Your task to perform on an android device: Search for "razer nari" on newegg, select the first entry, add it to the cart, then select checkout. Image 0: 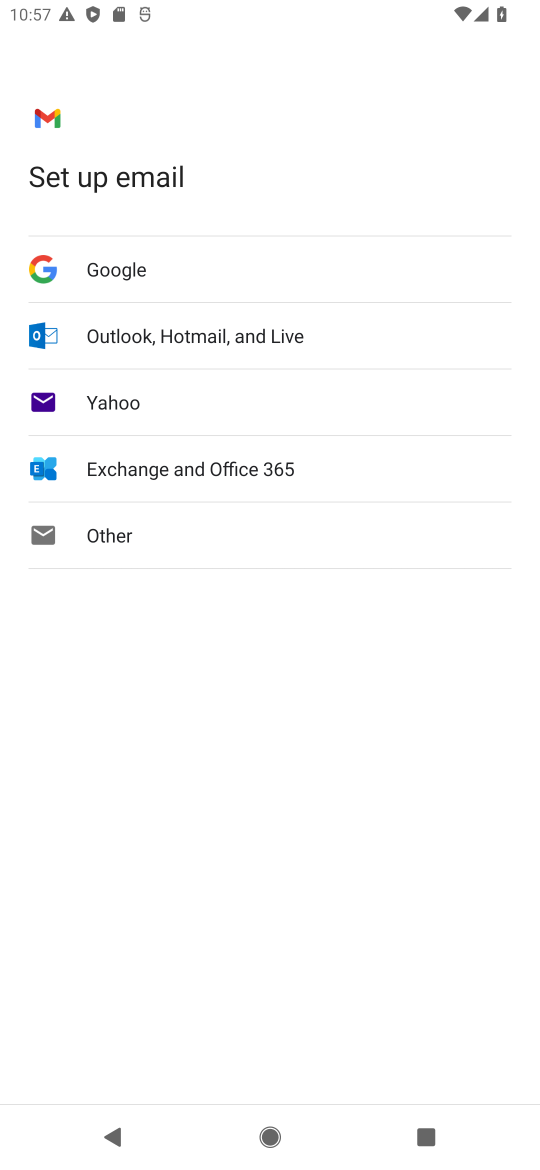
Step 0: press home button
Your task to perform on an android device: Search for "razer nari" on newegg, select the first entry, add it to the cart, then select checkout. Image 1: 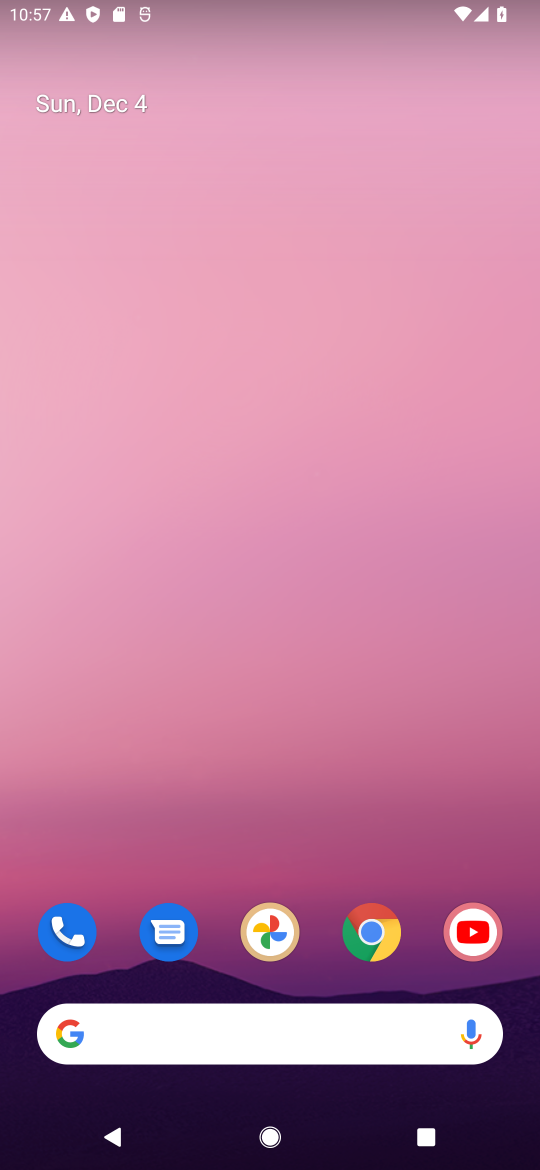
Step 1: click (359, 927)
Your task to perform on an android device: Search for "razer nari" on newegg, select the first entry, add it to the cart, then select checkout. Image 2: 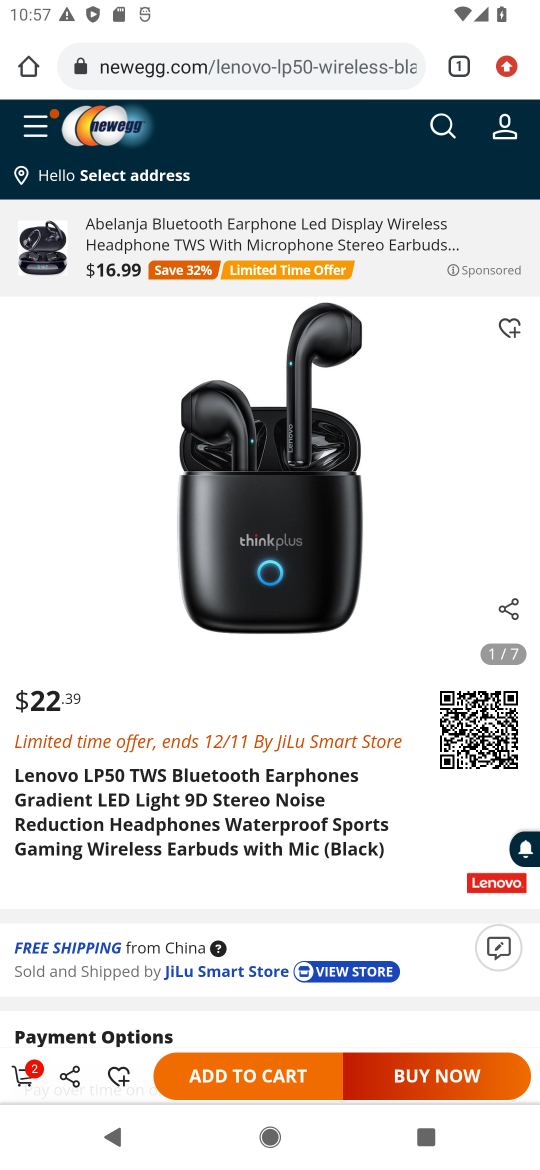
Step 2: click (286, 63)
Your task to perform on an android device: Search for "razer nari" on newegg, select the first entry, add it to the cart, then select checkout. Image 3: 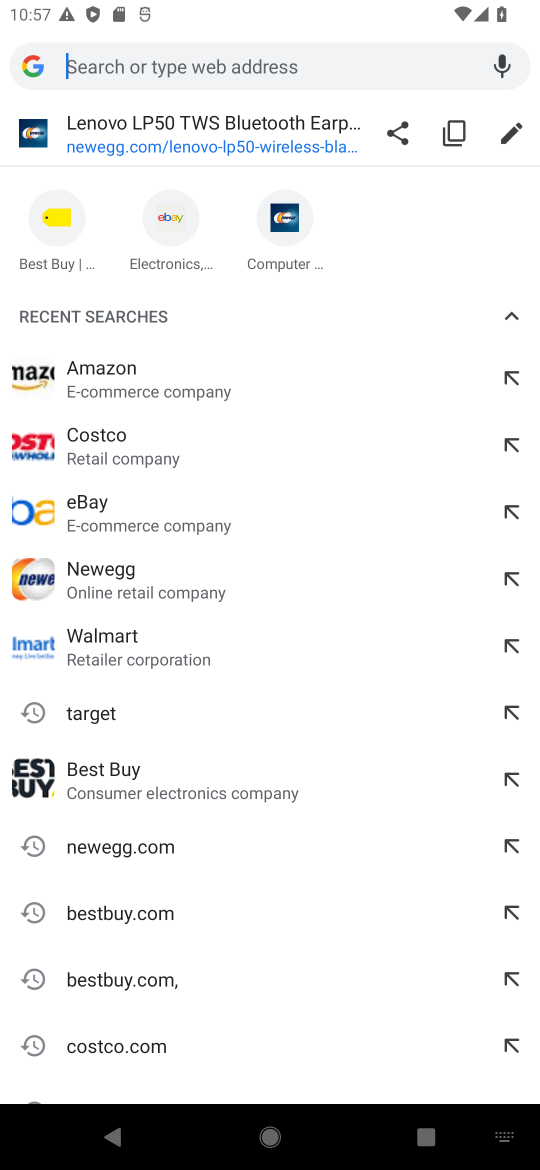
Step 3: click (109, 588)
Your task to perform on an android device: Search for "razer nari" on newegg, select the first entry, add it to the cart, then select checkout. Image 4: 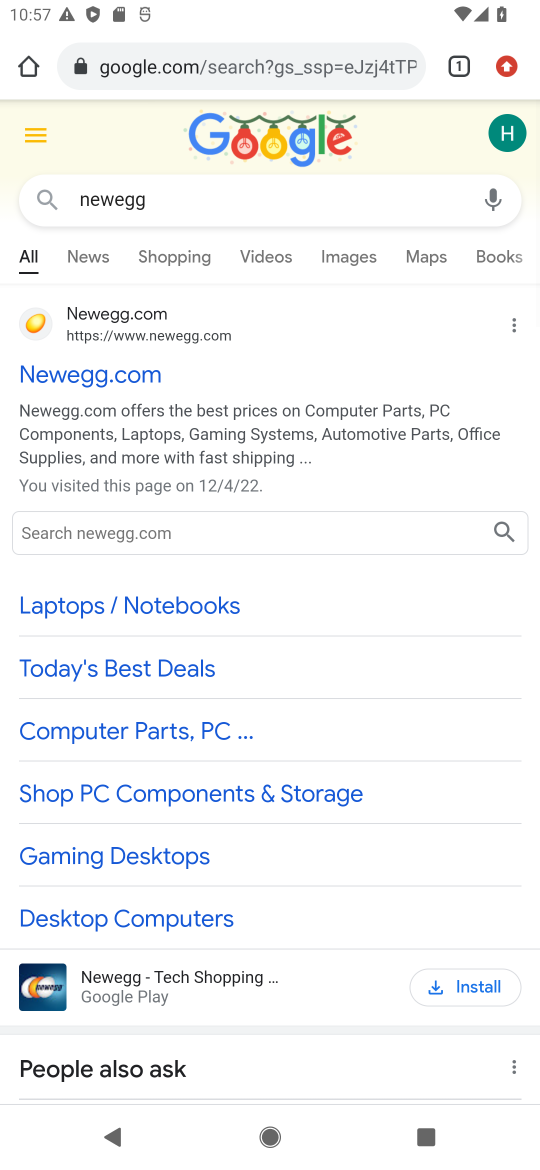
Step 4: click (112, 379)
Your task to perform on an android device: Search for "razer nari" on newegg, select the first entry, add it to the cart, then select checkout. Image 5: 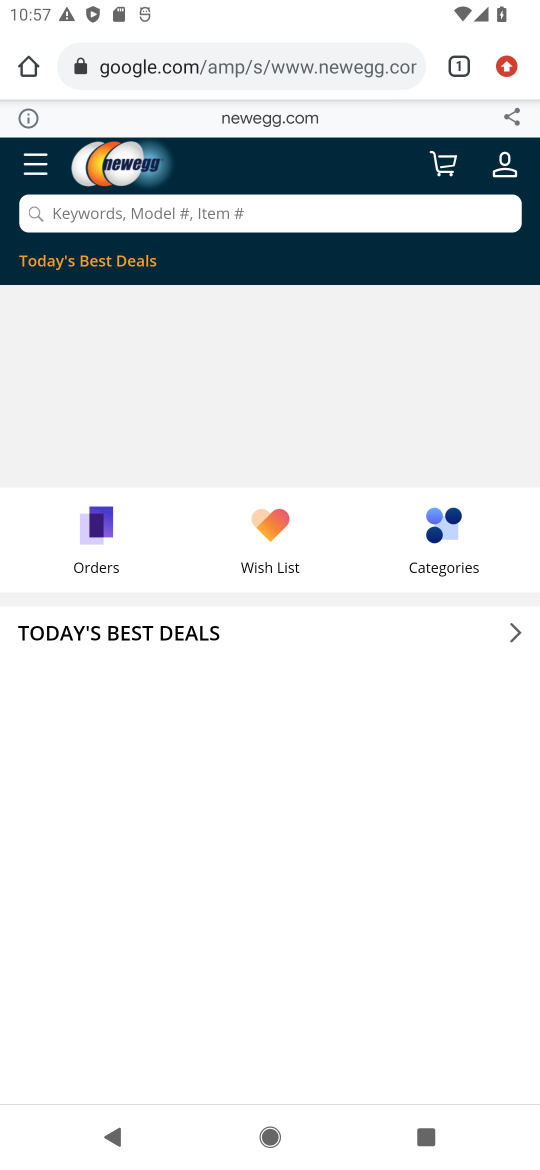
Step 5: click (296, 209)
Your task to perform on an android device: Search for "razer nari" on newegg, select the first entry, add it to the cart, then select checkout. Image 6: 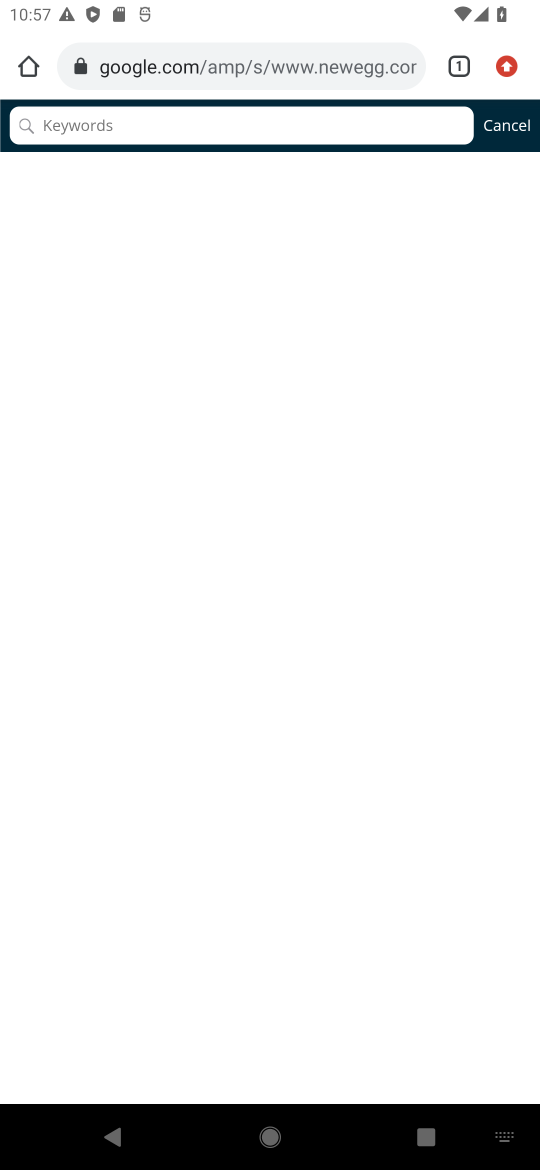
Step 6: type "razer nari"
Your task to perform on an android device: Search for "razer nari" on newegg, select the first entry, add it to the cart, then select checkout. Image 7: 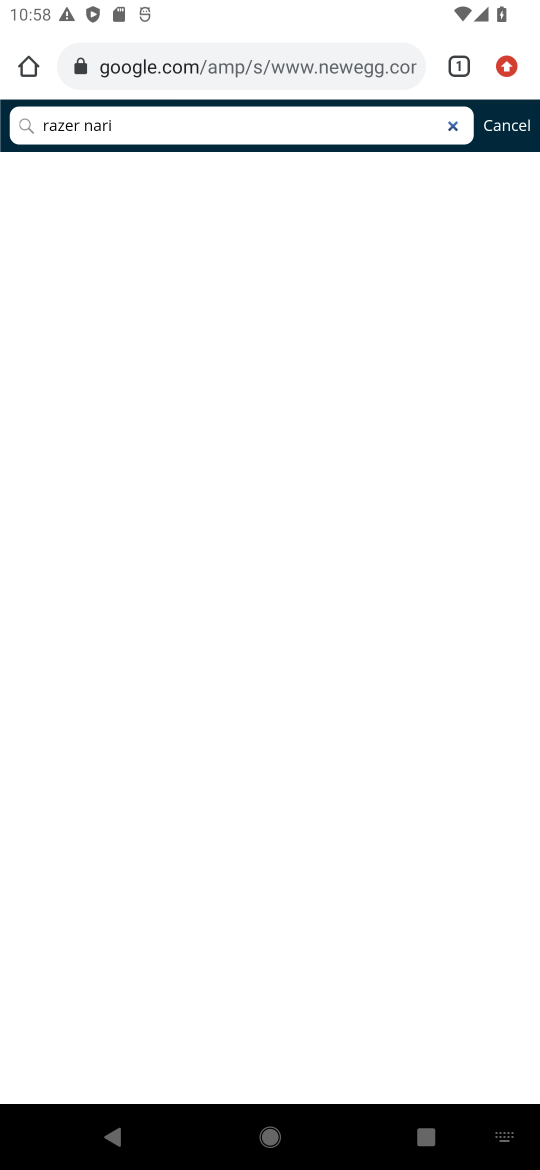
Step 7: task complete